Your task to perform on an android device: turn on sleep mode Image 0: 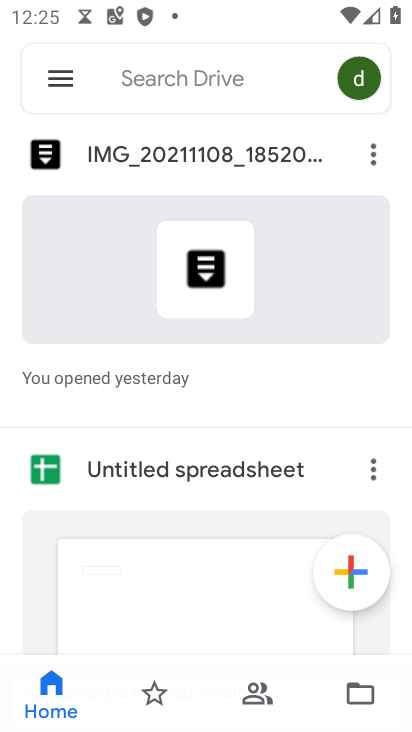
Step 0: press home button
Your task to perform on an android device: turn on sleep mode Image 1: 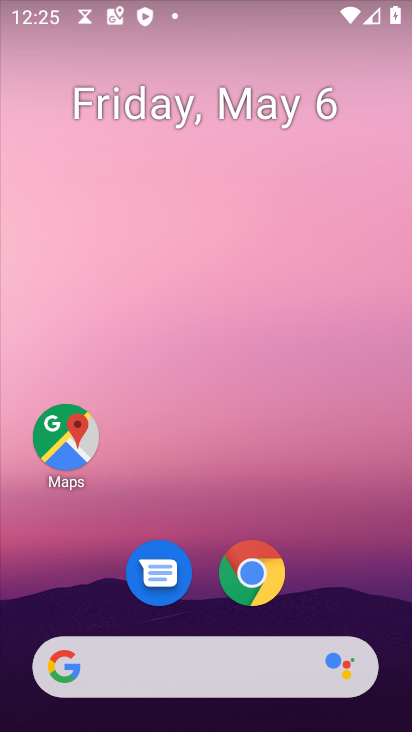
Step 1: drag from (335, 559) to (323, 219)
Your task to perform on an android device: turn on sleep mode Image 2: 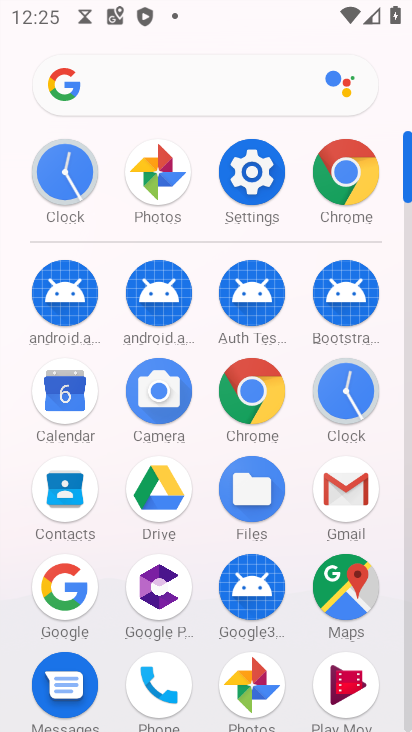
Step 2: click (257, 166)
Your task to perform on an android device: turn on sleep mode Image 3: 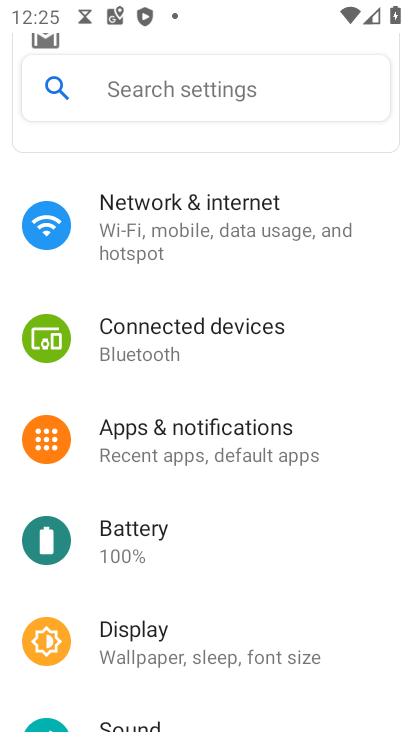
Step 3: task complete